Your task to perform on an android device: remove spam from my inbox in the gmail app Image 0: 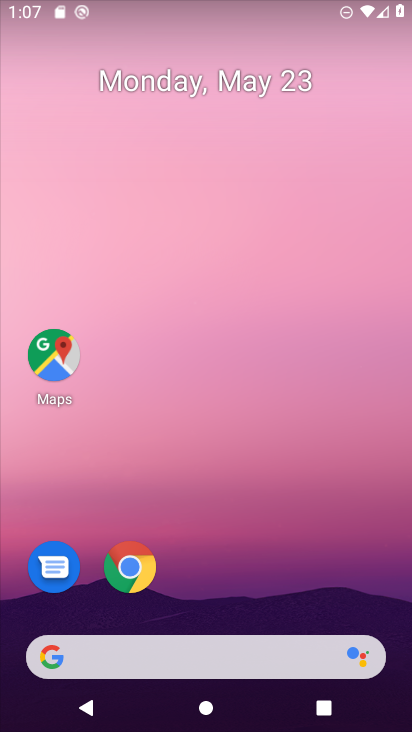
Step 0: drag from (315, 587) to (368, 5)
Your task to perform on an android device: remove spam from my inbox in the gmail app Image 1: 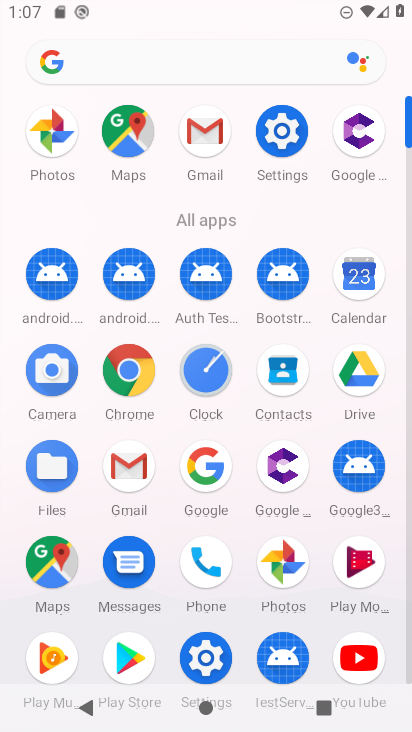
Step 1: click (147, 472)
Your task to perform on an android device: remove spam from my inbox in the gmail app Image 2: 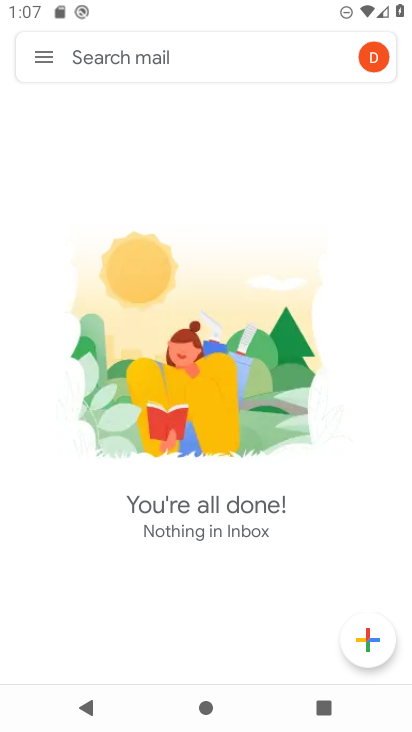
Step 2: click (49, 59)
Your task to perform on an android device: remove spam from my inbox in the gmail app Image 3: 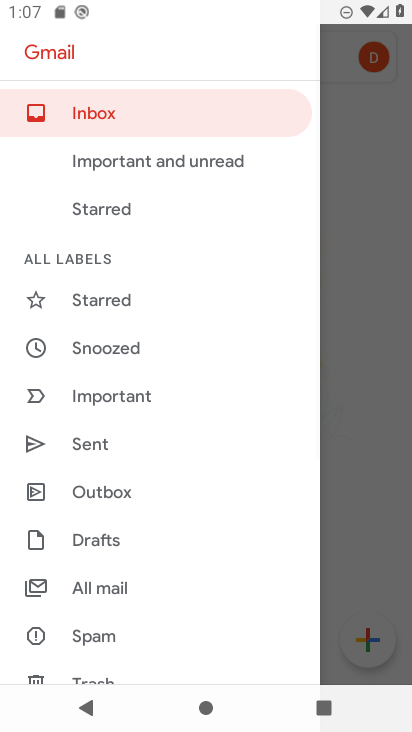
Step 3: click (383, 370)
Your task to perform on an android device: remove spam from my inbox in the gmail app Image 4: 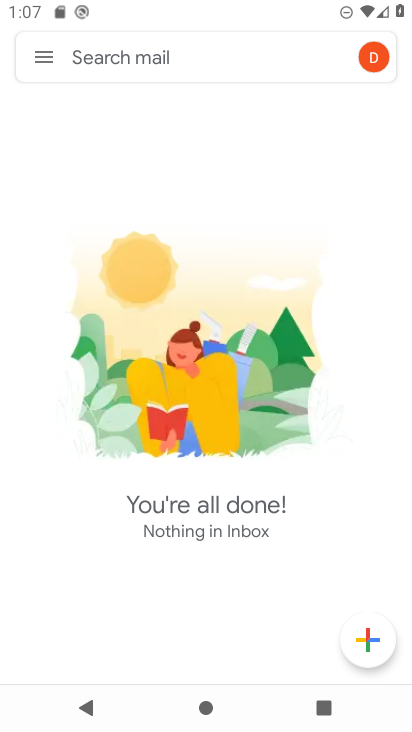
Step 4: task complete